Your task to perform on an android device: Go to Amazon Image 0: 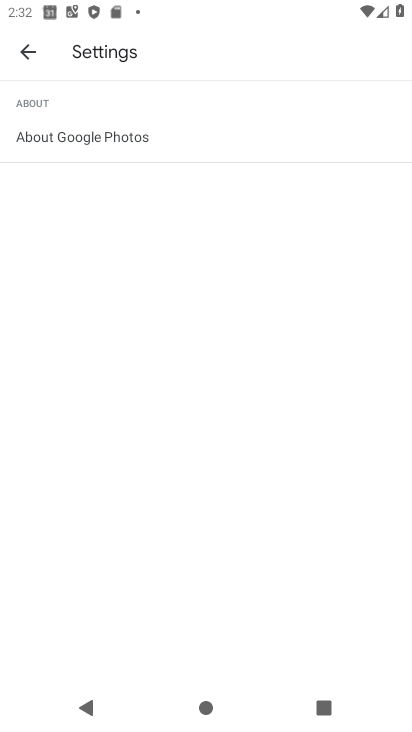
Step 0: press home button
Your task to perform on an android device: Go to Amazon Image 1: 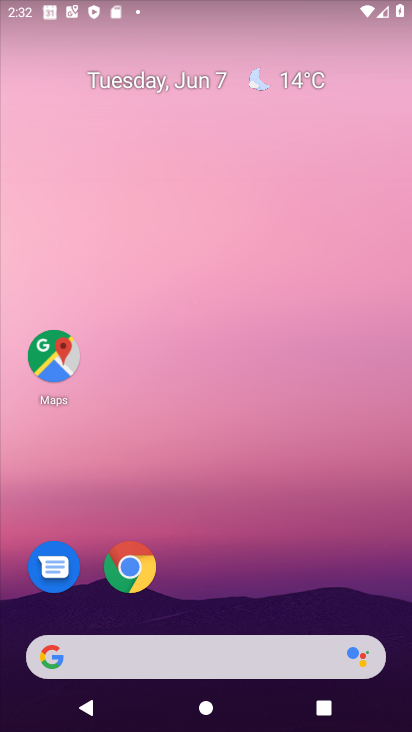
Step 1: click (141, 549)
Your task to perform on an android device: Go to Amazon Image 2: 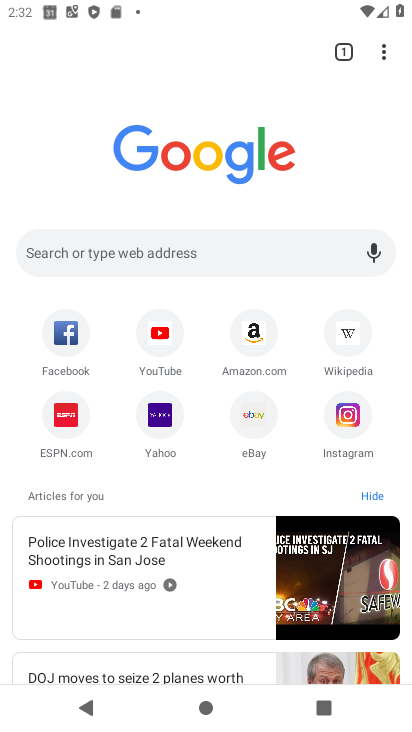
Step 2: click (249, 335)
Your task to perform on an android device: Go to Amazon Image 3: 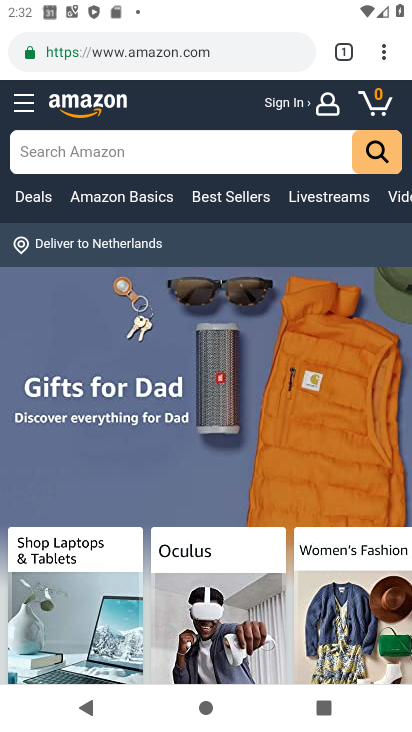
Step 3: task complete